Your task to perform on an android device: check out phone information Image 0: 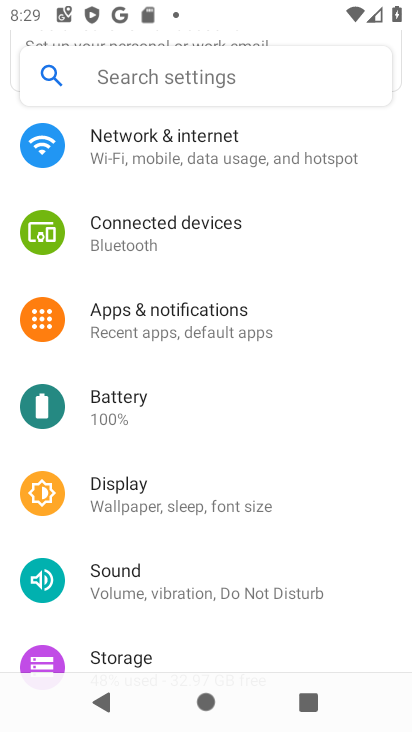
Step 0: drag from (211, 635) to (215, 83)
Your task to perform on an android device: check out phone information Image 1: 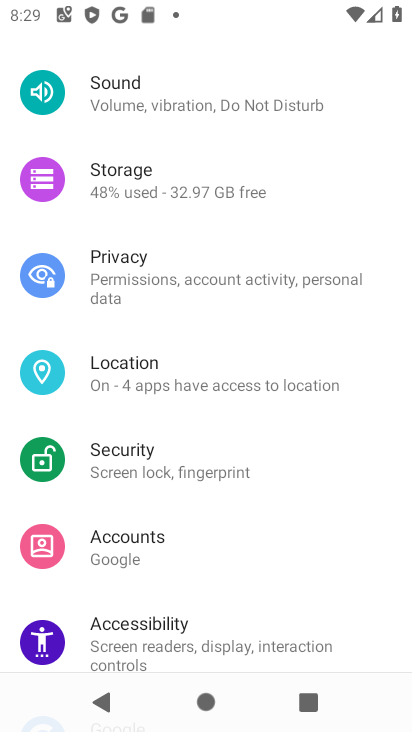
Step 1: drag from (212, 613) to (240, 134)
Your task to perform on an android device: check out phone information Image 2: 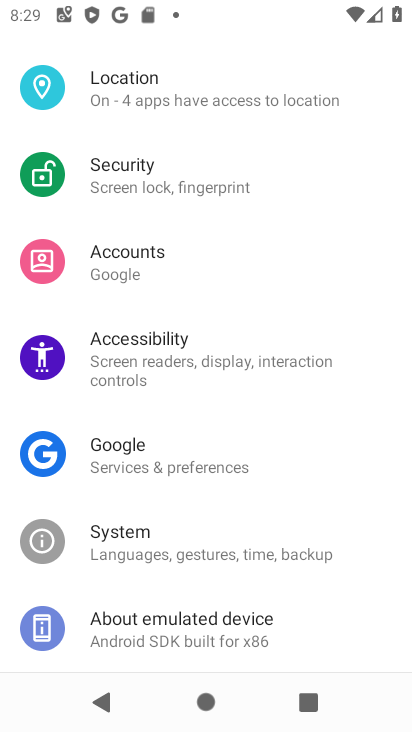
Step 2: click (208, 631)
Your task to perform on an android device: check out phone information Image 3: 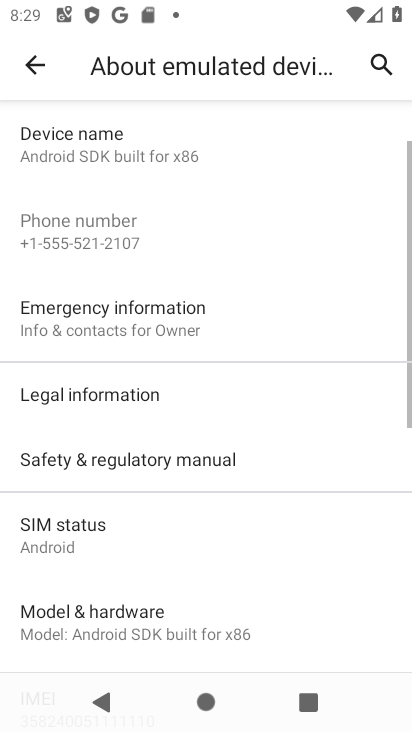
Step 3: task complete